Your task to perform on an android device: Open battery settings Image 0: 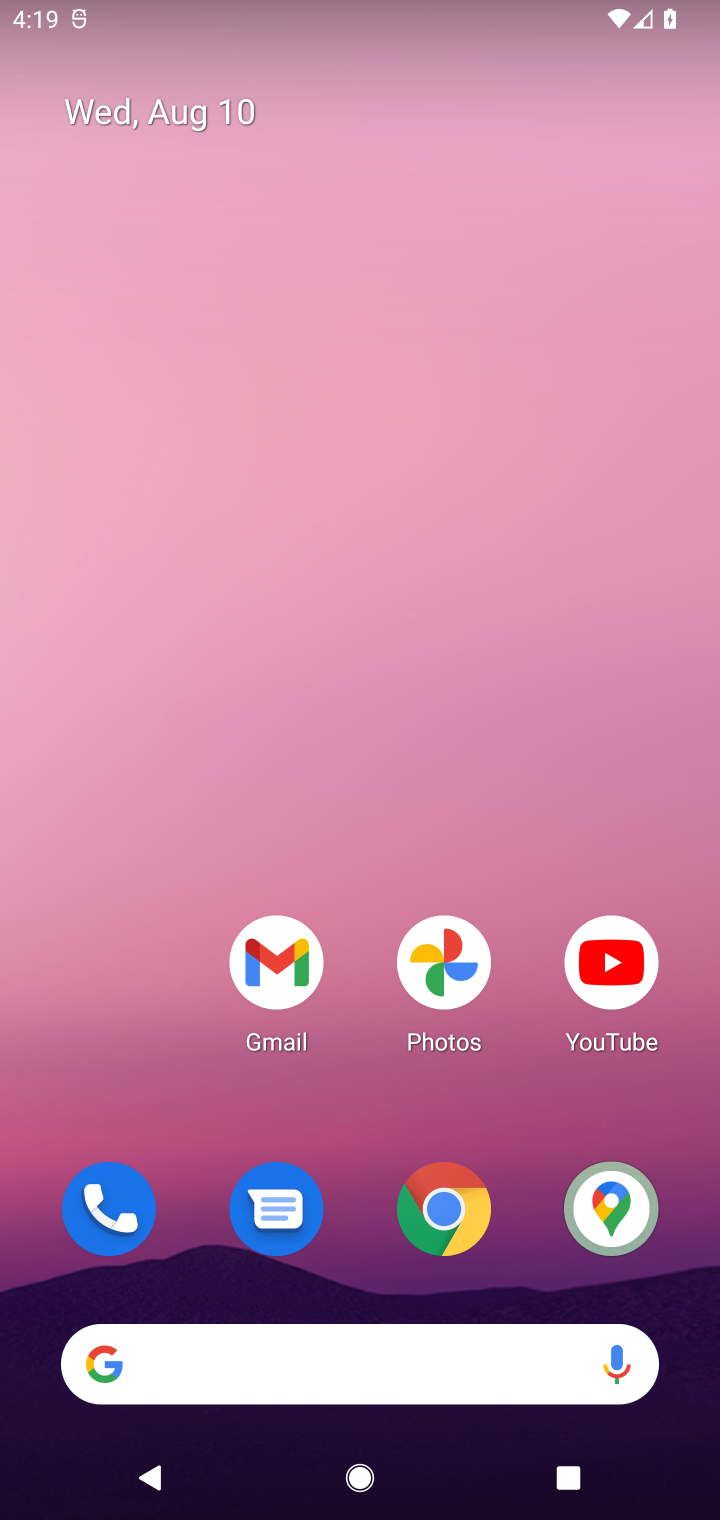
Step 0: drag from (377, 1272) to (287, 431)
Your task to perform on an android device: Open battery settings Image 1: 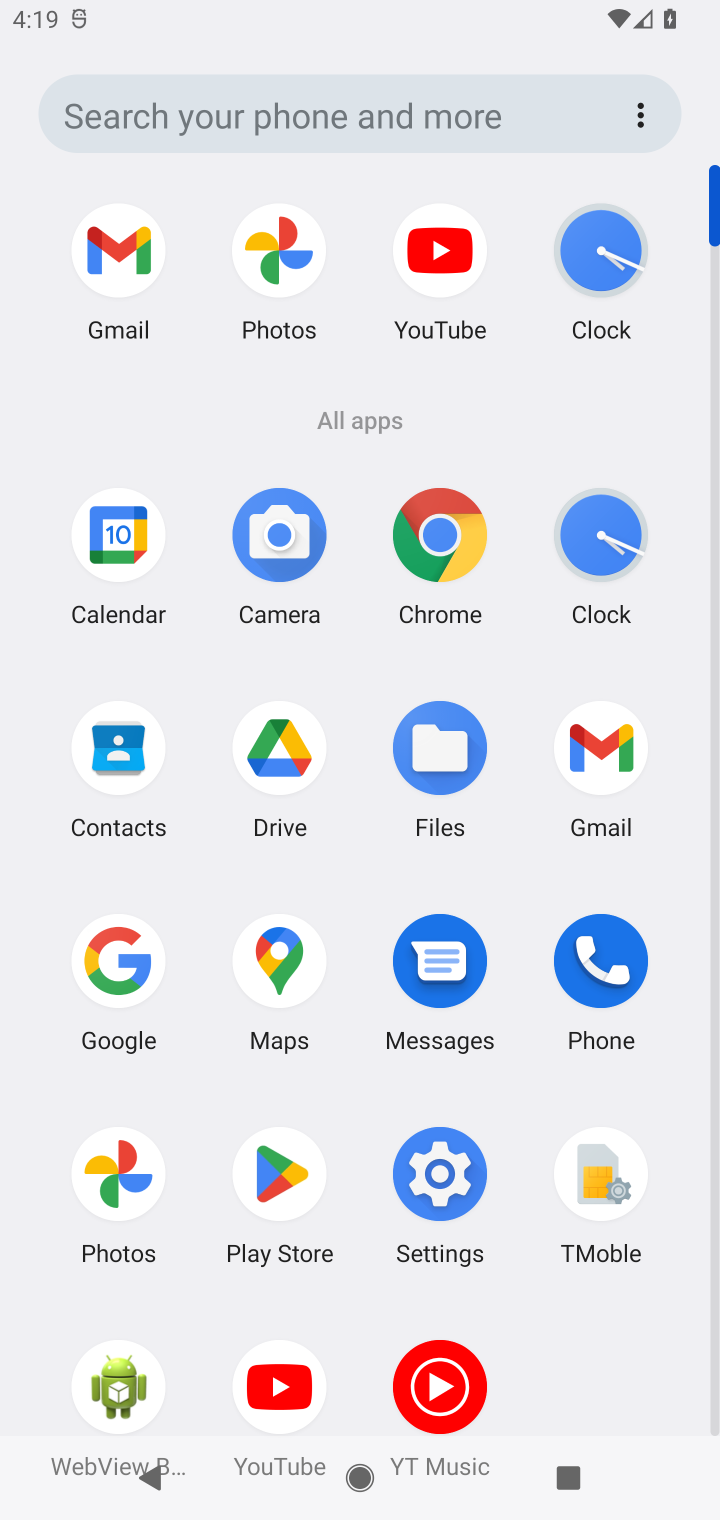
Step 1: click (499, 1109)
Your task to perform on an android device: Open battery settings Image 2: 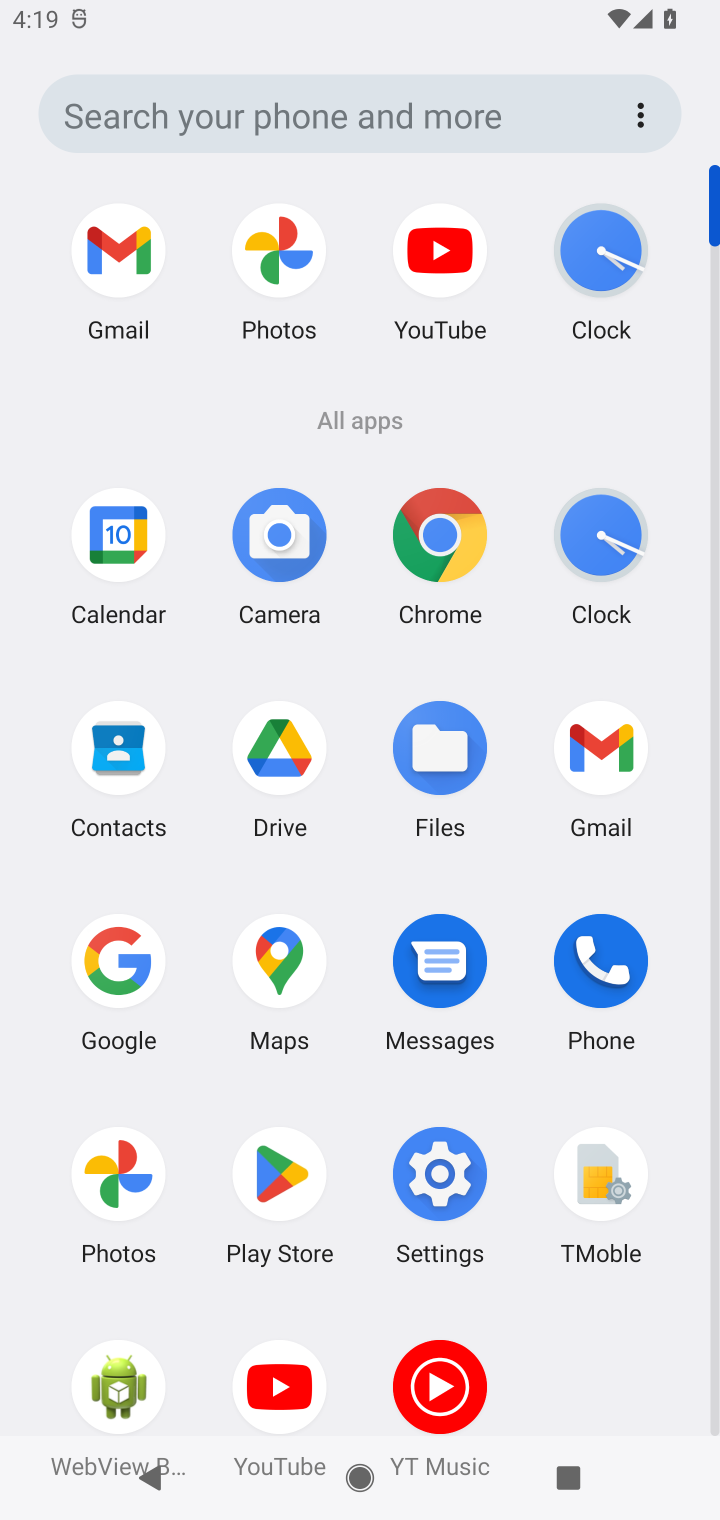
Step 2: click (421, 1166)
Your task to perform on an android device: Open battery settings Image 3: 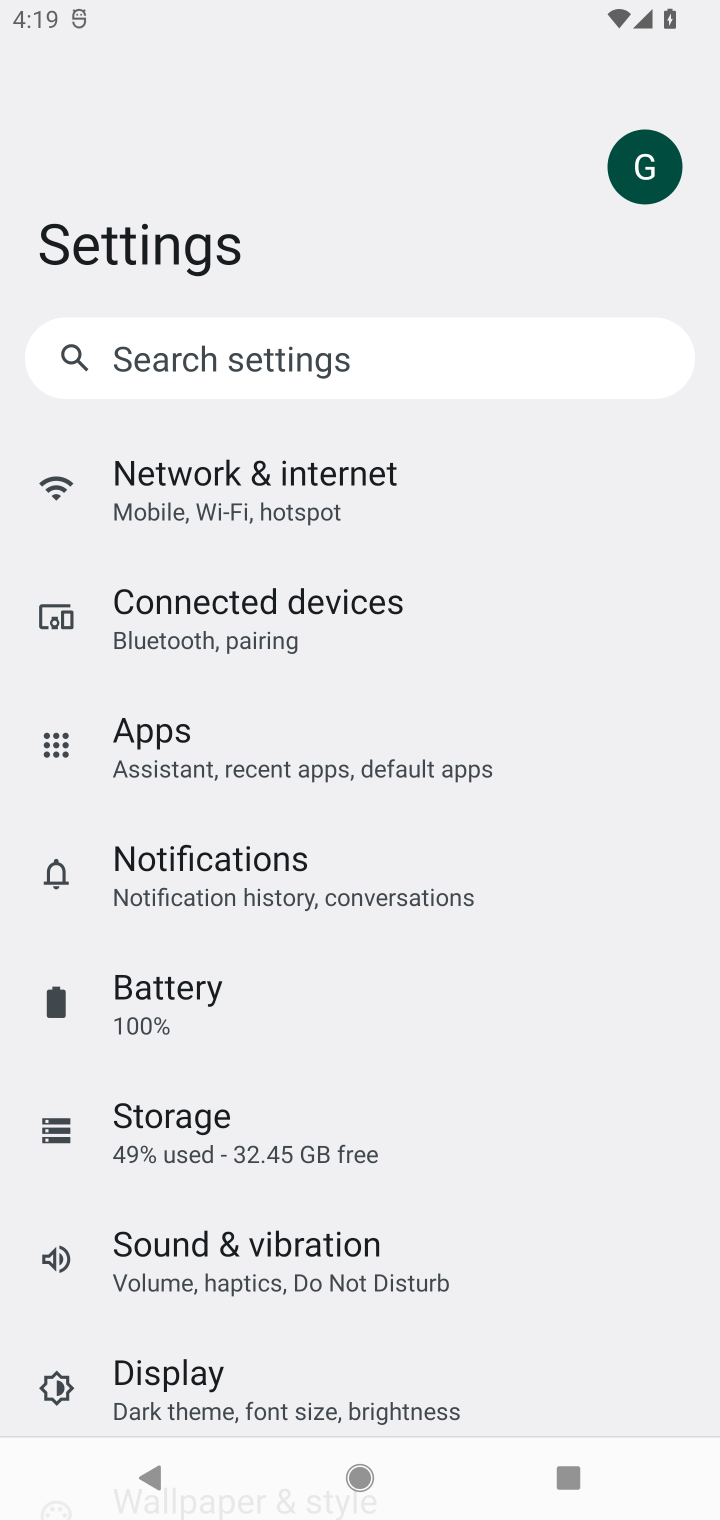
Step 3: click (81, 1004)
Your task to perform on an android device: Open battery settings Image 4: 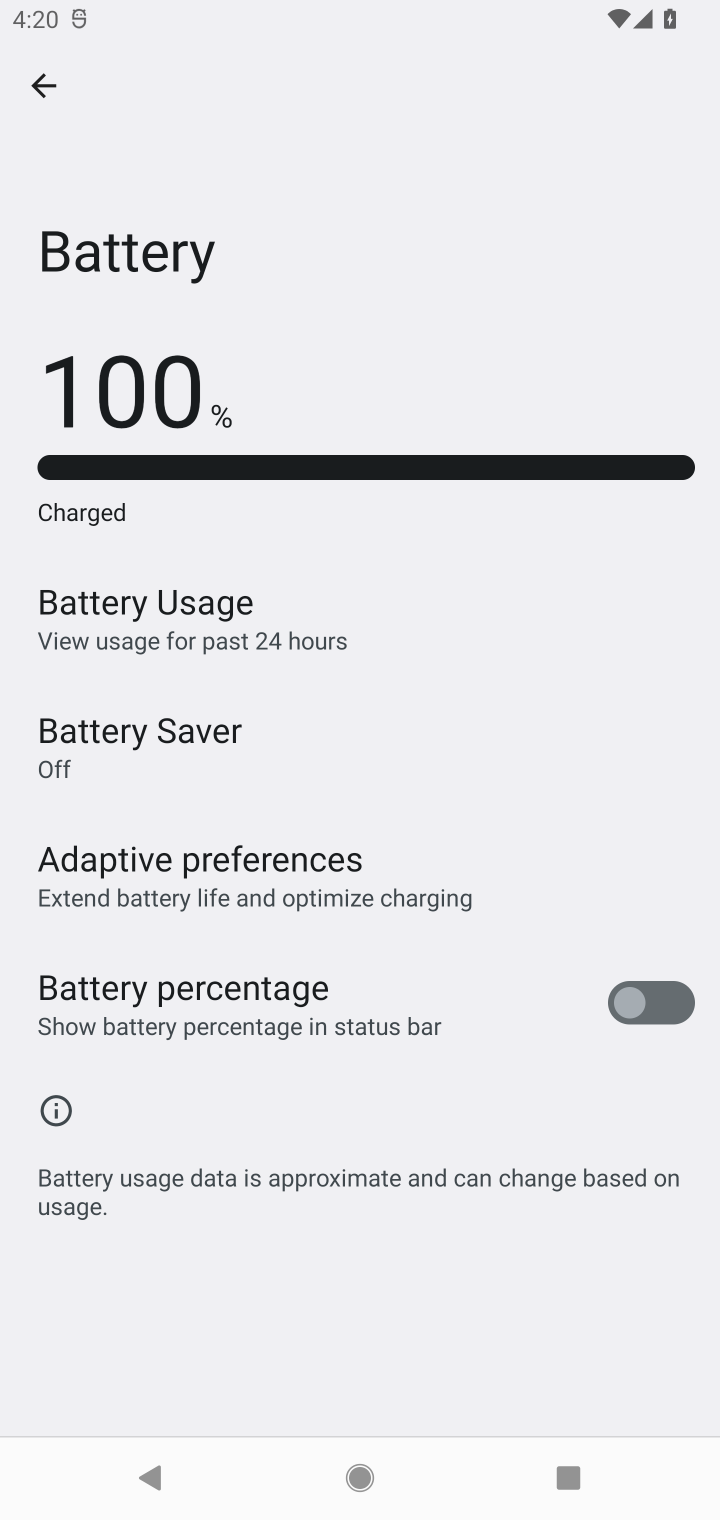
Step 4: task complete